Your task to perform on an android device: Go to ESPN.com Image 0: 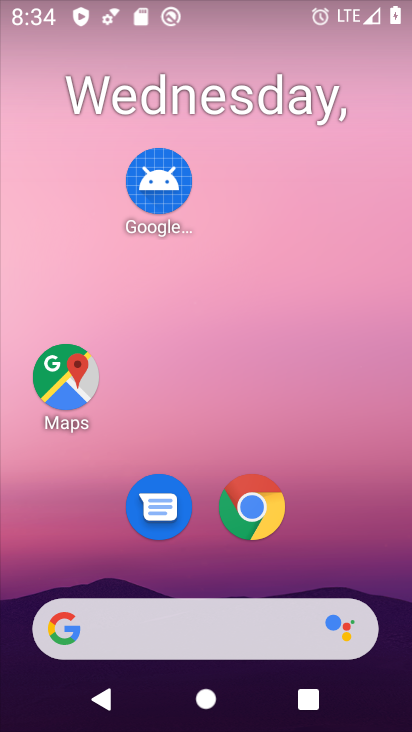
Step 0: drag from (222, 584) to (221, 81)
Your task to perform on an android device: Go to ESPN.com Image 1: 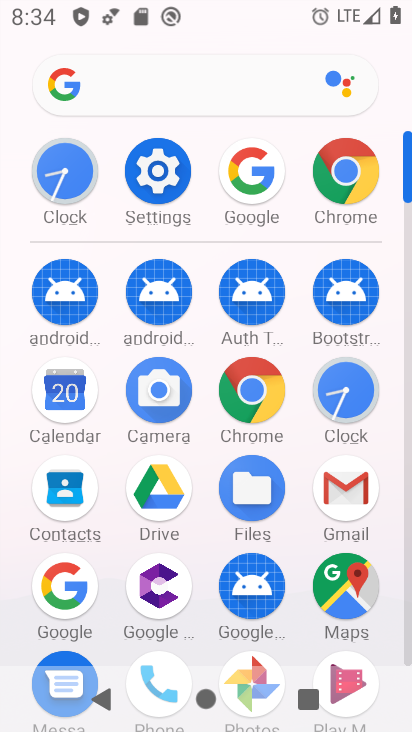
Step 1: click (249, 391)
Your task to perform on an android device: Go to ESPN.com Image 2: 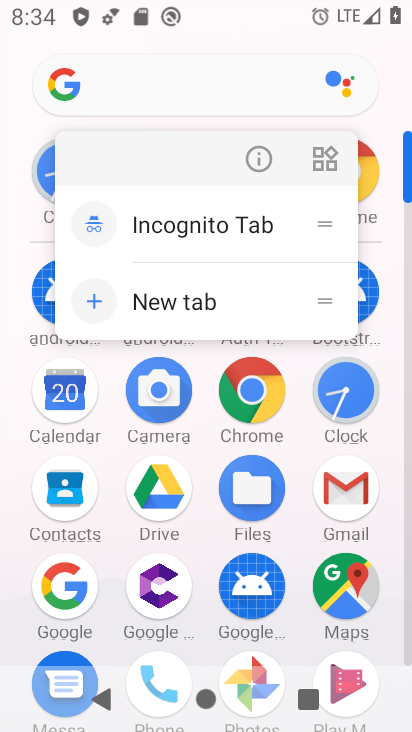
Step 2: click (249, 391)
Your task to perform on an android device: Go to ESPN.com Image 3: 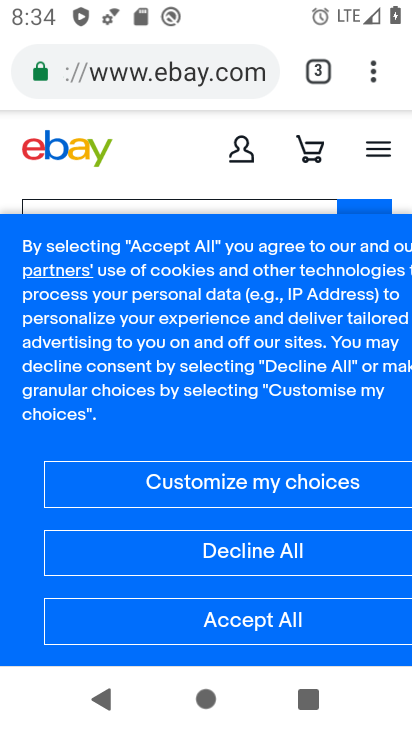
Step 3: click (320, 62)
Your task to perform on an android device: Go to ESPN.com Image 4: 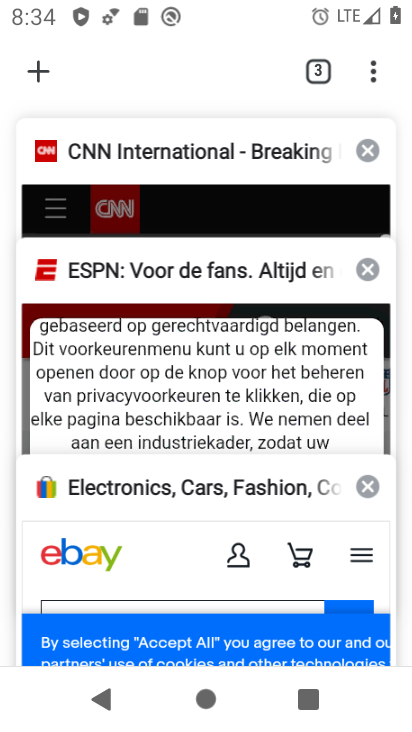
Step 4: click (38, 63)
Your task to perform on an android device: Go to ESPN.com Image 5: 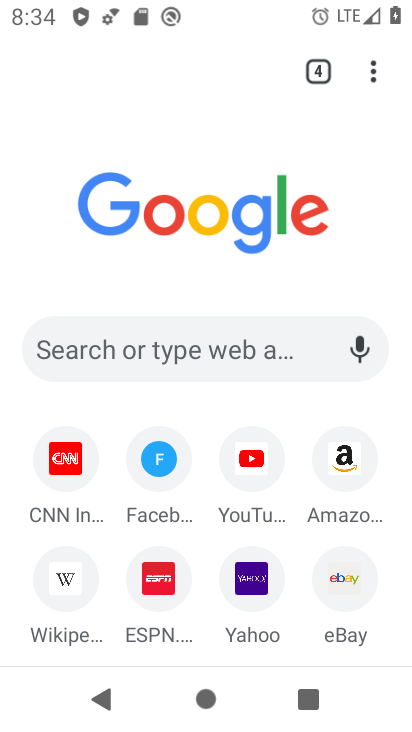
Step 5: click (168, 580)
Your task to perform on an android device: Go to ESPN.com Image 6: 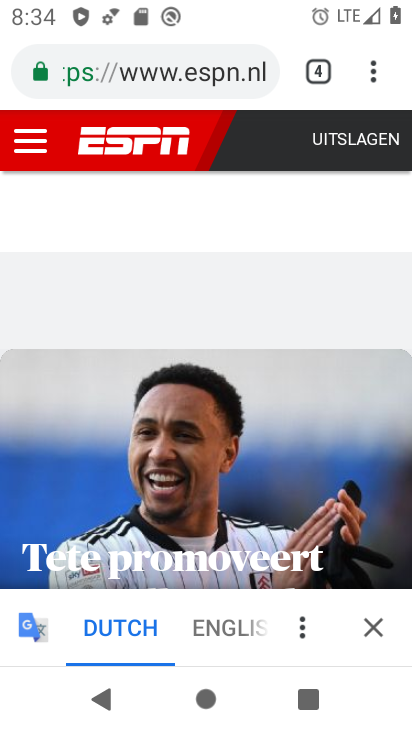
Step 6: drag from (190, 546) to (191, 119)
Your task to perform on an android device: Go to ESPN.com Image 7: 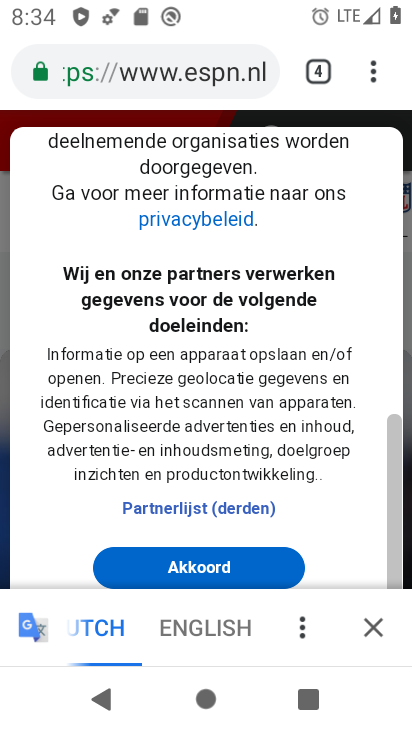
Step 7: click (91, 684)
Your task to perform on an android device: Go to ESPN.com Image 8: 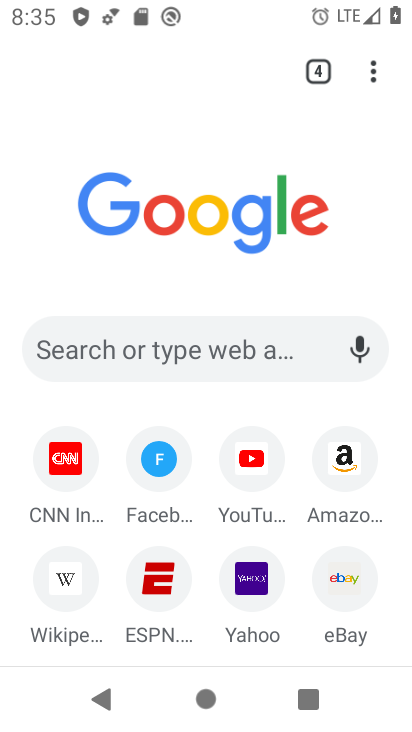
Step 8: click (165, 594)
Your task to perform on an android device: Go to ESPN.com Image 9: 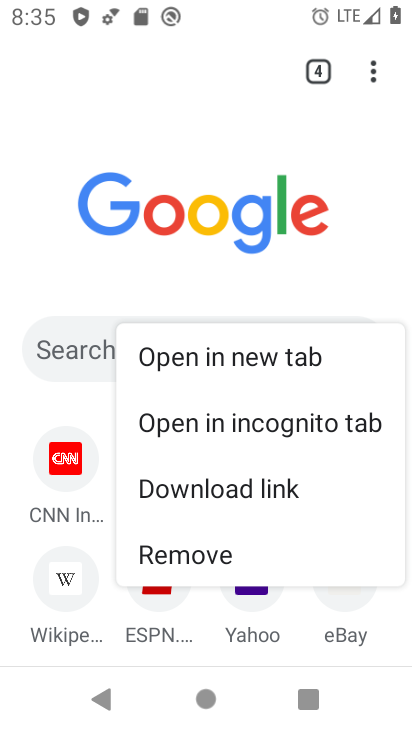
Step 9: click (141, 621)
Your task to perform on an android device: Go to ESPN.com Image 10: 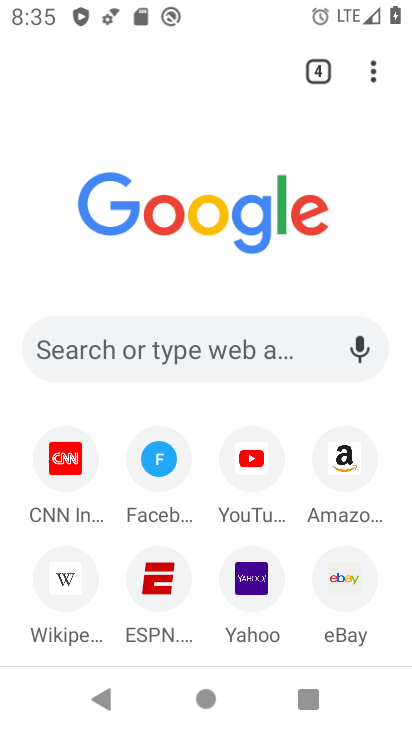
Step 10: click (153, 634)
Your task to perform on an android device: Go to ESPN.com Image 11: 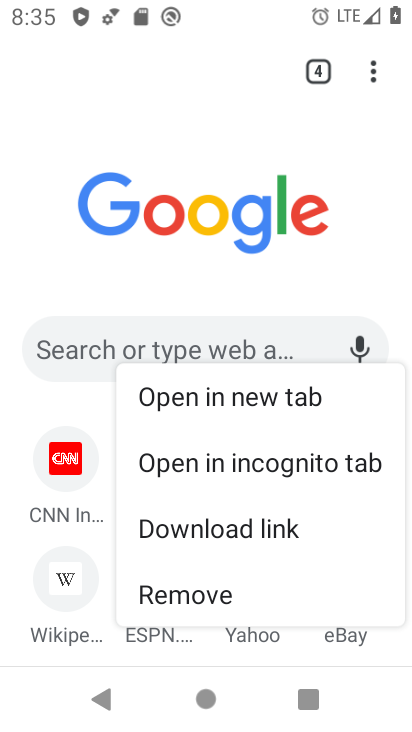
Step 11: click (210, 391)
Your task to perform on an android device: Go to ESPN.com Image 12: 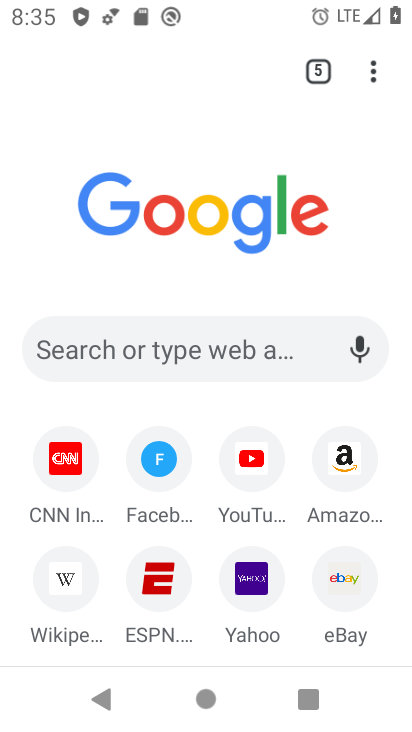
Step 12: click (153, 568)
Your task to perform on an android device: Go to ESPN.com Image 13: 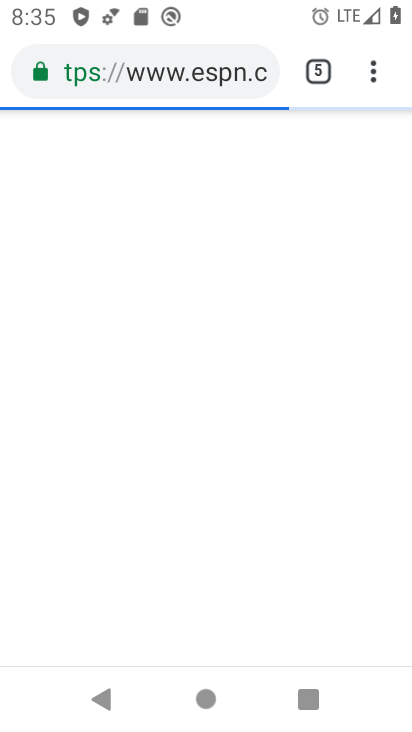
Step 13: task complete